Your task to perform on an android device: Open Youtube and go to "Your channel" Image 0: 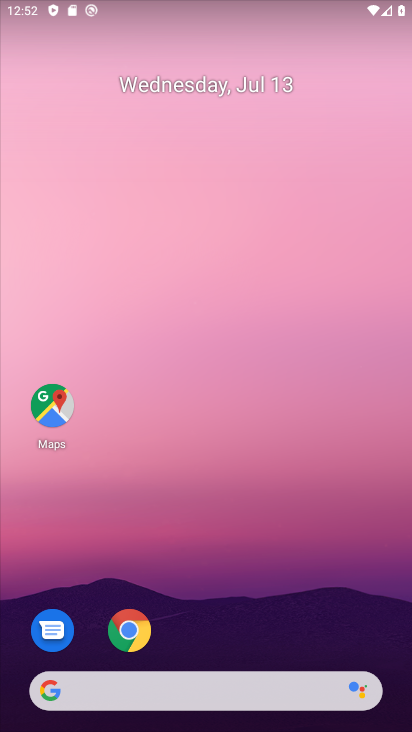
Step 0: drag from (327, 581) to (411, 452)
Your task to perform on an android device: Open Youtube and go to "Your channel" Image 1: 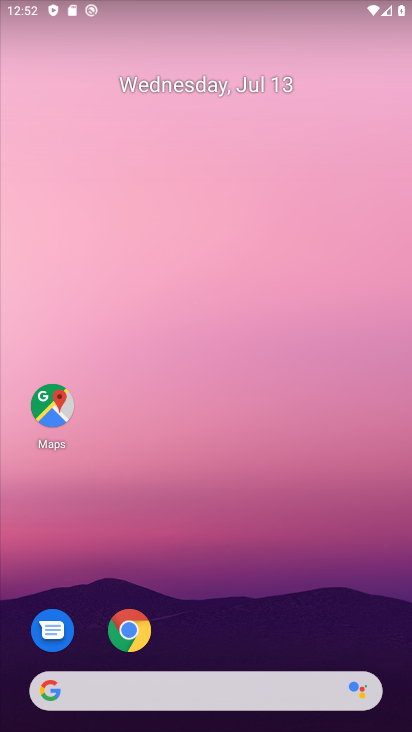
Step 1: drag from (332, 607) to (406, 71)
Your task to perform on an android device: Open Youtube and go to "Your channel" Image 2: 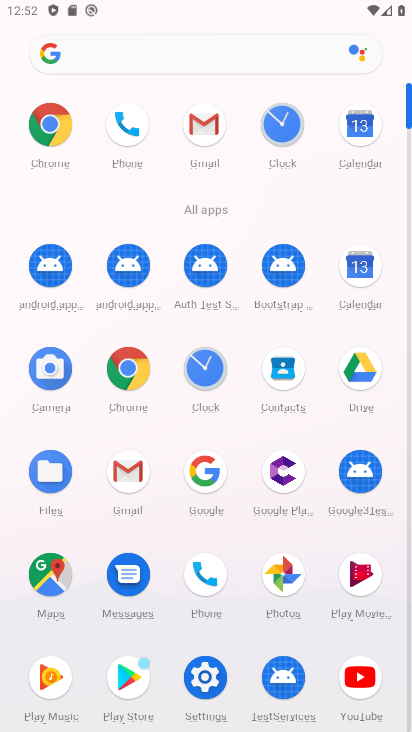
Step 2: click (370, 682)
Your task to perform on an android device: Open Youtube and go to "Your channel" Image 3: 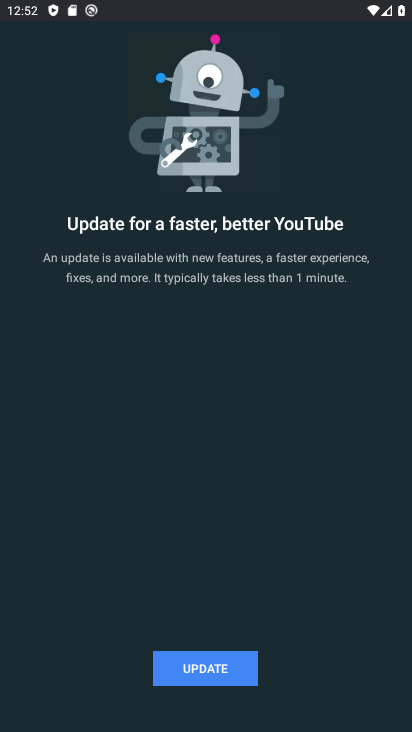
Step 3: click (242, 671)
Your task to perform on an android device: Open Youtube and go to "Your channel" Image 4: 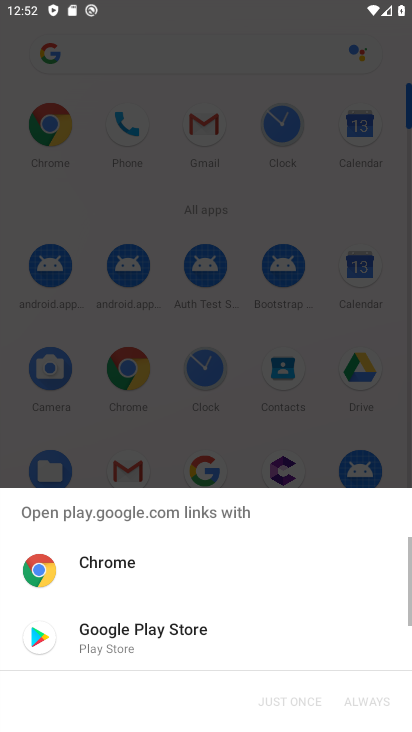
Step 4: click (198, 637)
Your task to perform on an android device: Open Youtube and go to "Your channel" Image 5: 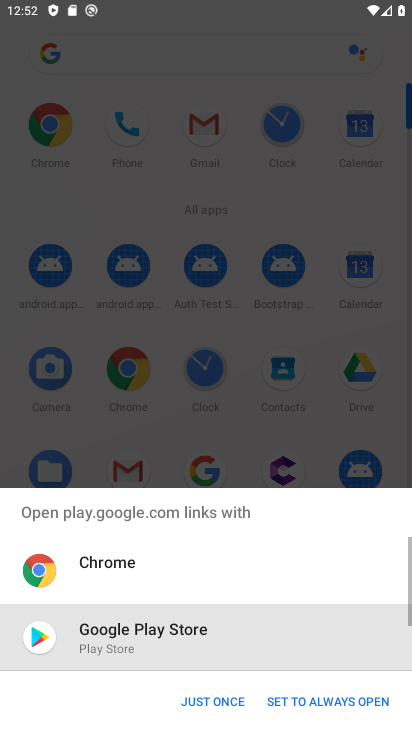
Step 5: click (191, 704)
Your task to perform on an android device: Open Youtube and go to "Your channel" Image 6: 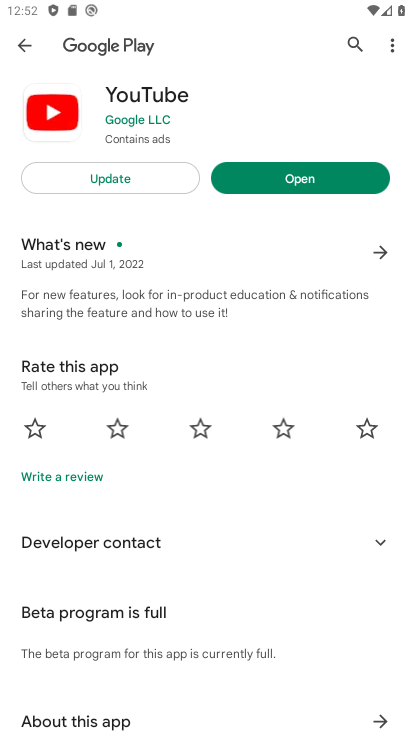
Step 6: click (137, 177)
Your task to perform on an android device: Open Youtube and go to "Your channel" Image 7: 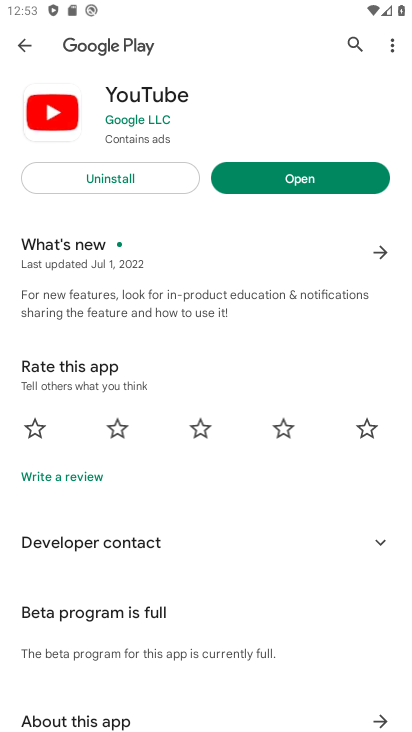
Step 7: click (314, 180)
Your task to perform on an android device: Open Youtube and go to "Your channel" Image 8: 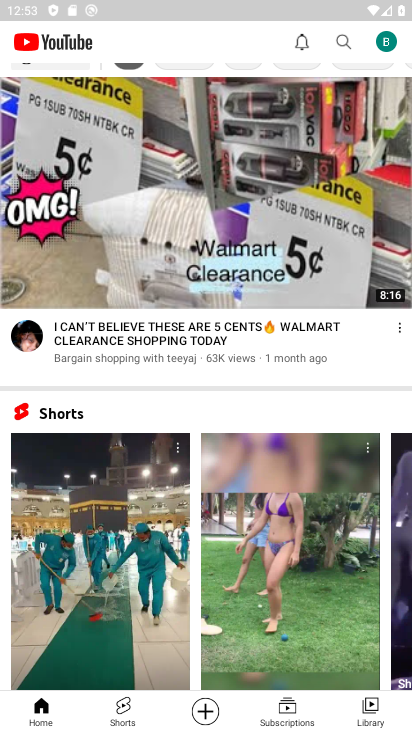
Step 8: click (385, 49)
Your task to perform on an android device: Open Youtube and go to "Your channel" Image 9: 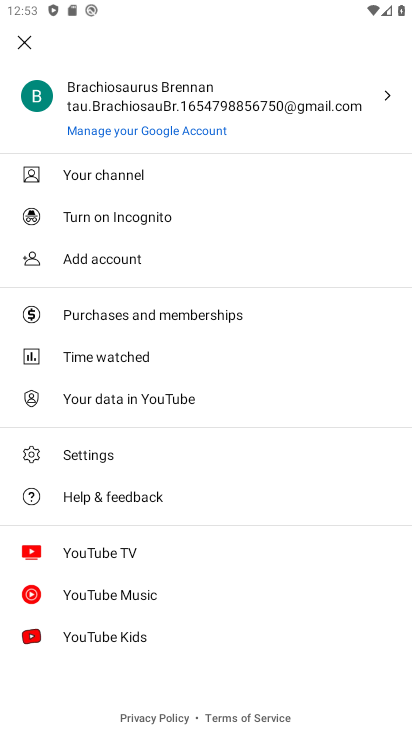
Step 9: click (117, 182)
Your task to perform on an android device: Open Youtube and go to "Your channel" Image 10: 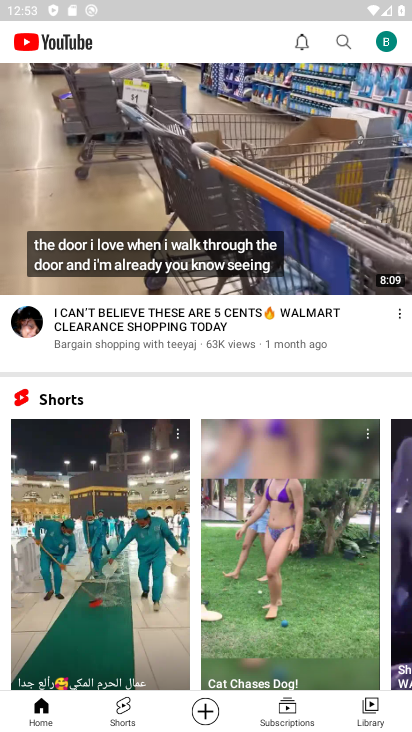
Step 10: task complete